Your task to perform on an android device: Open my contact list Image 0: 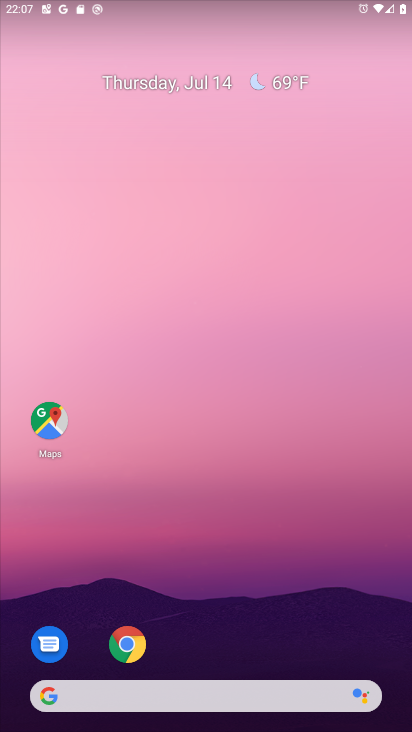
Step 0: drag from (199, 635) to (198, 129)
Your task to perform on an android device: Open my contact list Image 1: 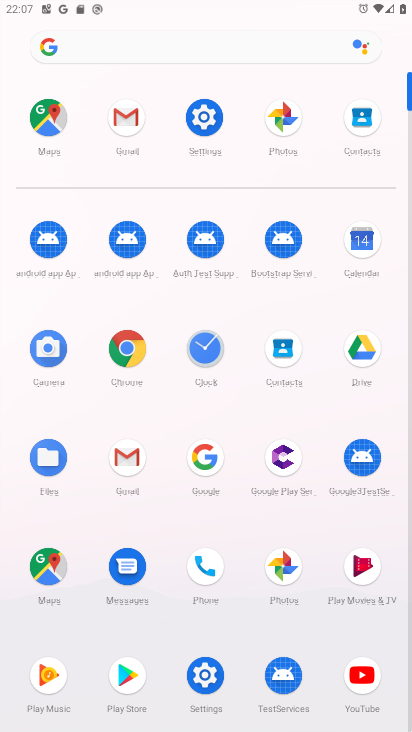
Step 1: click (288, 358)
Your task to perform on an android device: Open my contact list Image 2: 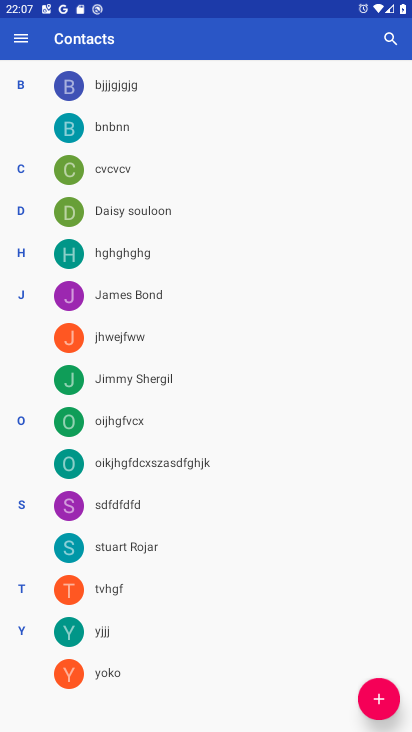
Step 2: task complete